Your task to perform on an android device: toggle notification dots Image 0: 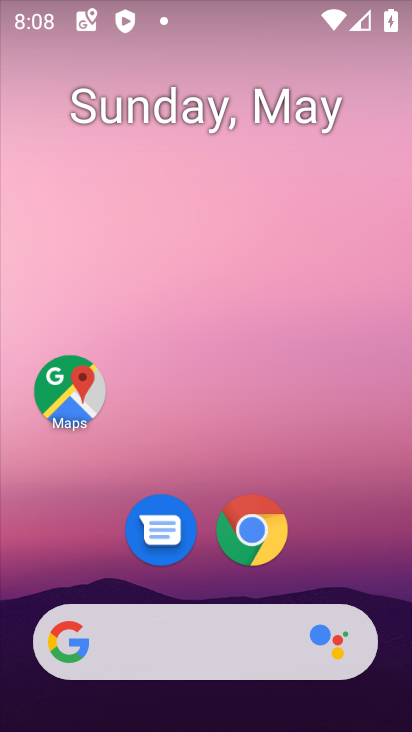
Step 0: drag from (370, 566) to (403, 521)
Your task to perform on an android device: toggle notification dots Image 1: 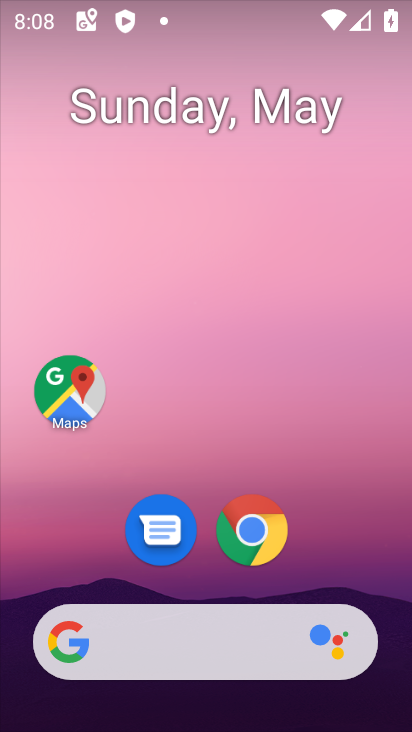
Step 1: drag from (332, 585) to (321, 4)
Your task to perform on an android device: toggle notification dots Image 2: 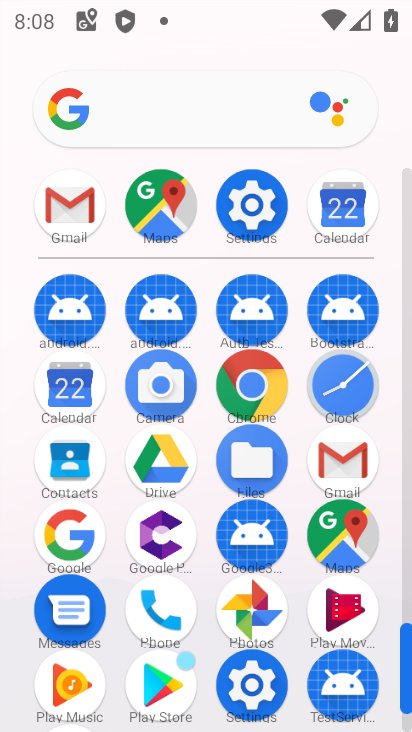
Step 2: click (238, 216)
Your task to perform on an android device: toggle notification dots Image 3: 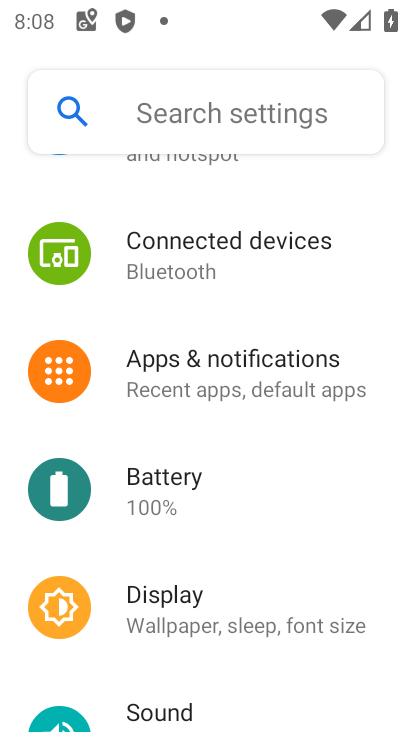
Step 3: click (239, 390)
Your task to perform on an android device: toggle notification dots Image 4: 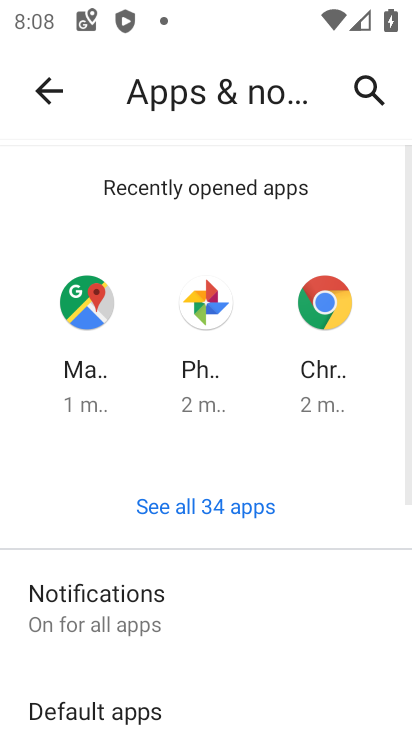
Step 4: drag from (236, 357) to (247, 142)
Your task to perform on an android device: toggle notification dots Image 5: 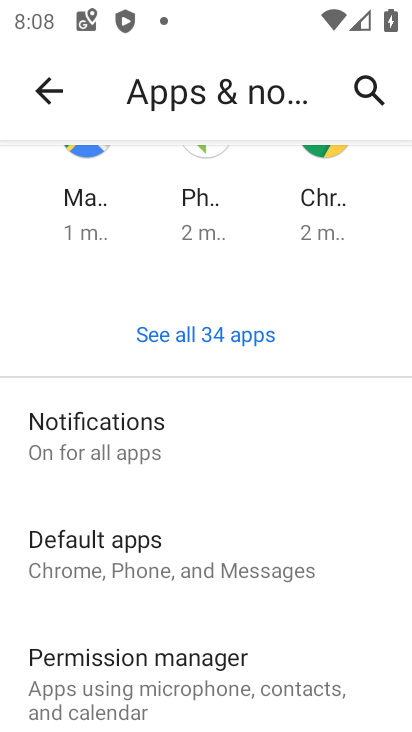
Step 5: click (88, 451)
Your task to perform on an android device: toggle notification dots Image 6: 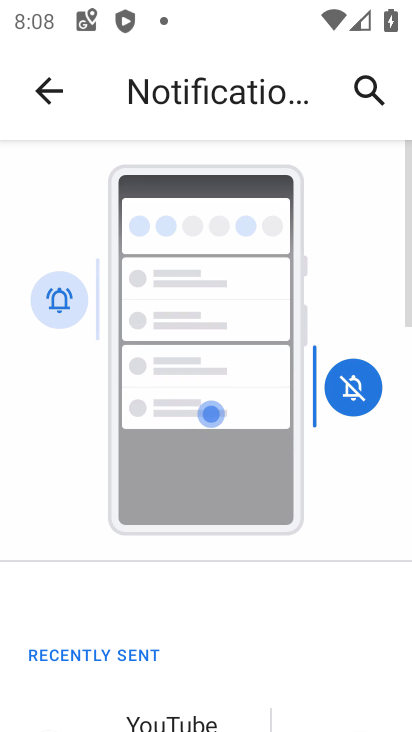
Step 6: drag from (264, 617) to (278, 82)
Your task to perform on an android device: toggle notification dots Image 7: 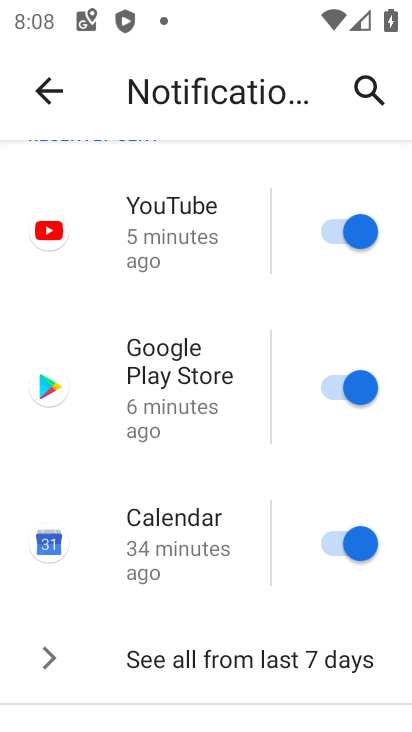
Step 7: drag from (175, 620) to (184, 42)
Your task to perform on an android device: toggle notification dots Image 8: 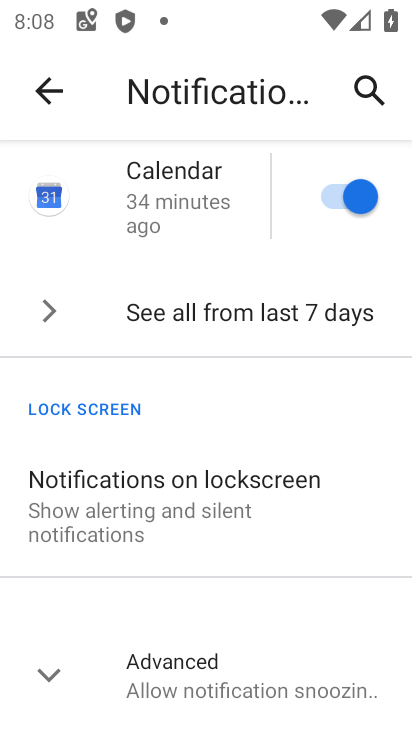
Step 8: click (52, 683)
Your task to perform on an android device: toggle notification dots Image 9: 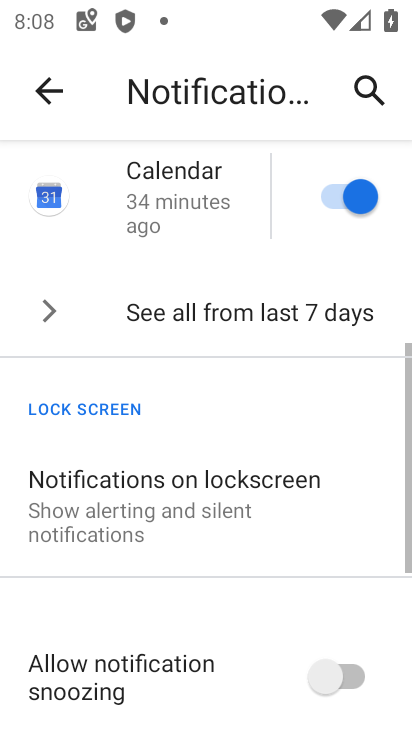
Step 9: drag from (121, 668) to (164, 97)
Your task to perform on an android device: toggle notification dots Image 10: 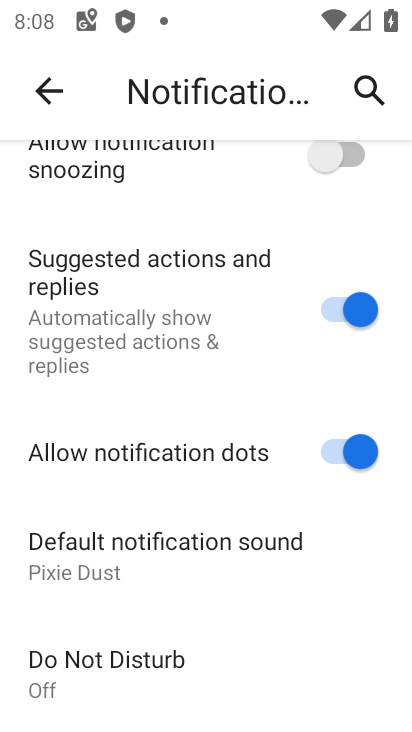
Step 10: click (345, 451)
Your task to perform on an android device: toggle notification dots Image 11: 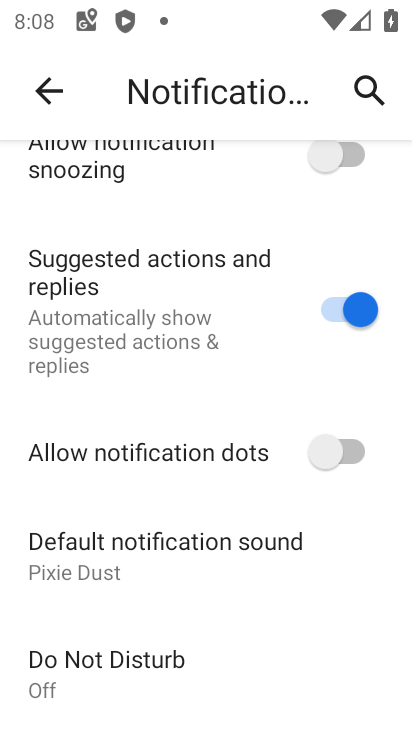
Step 11: task complete